Your task to perform on an android device: remove spam from my inbox in the gmail app Image 0: 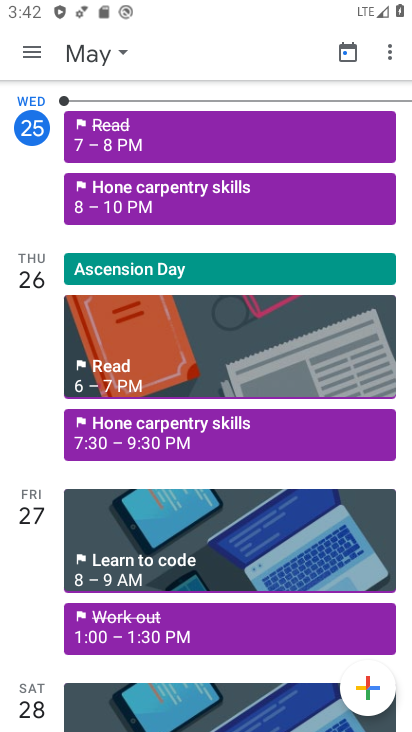
Step 0: press home button
Your task to perform on an android device: remove spam from my inbox in the gmail app Image 1: 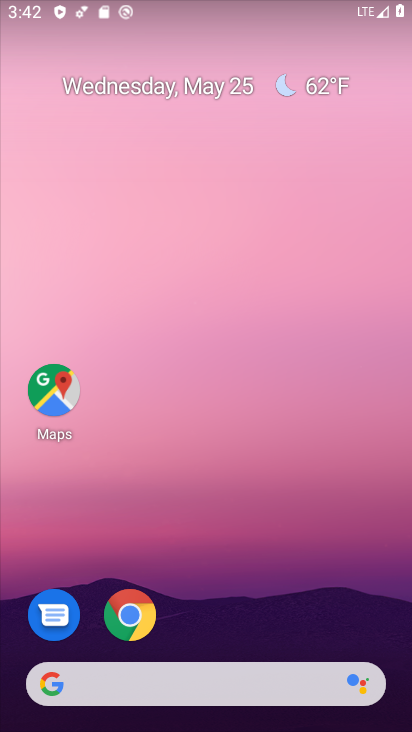
Step 1: click (131, 612)
Your task to perform on an android device: remove spam from my inbox in the gmail app Image 2: 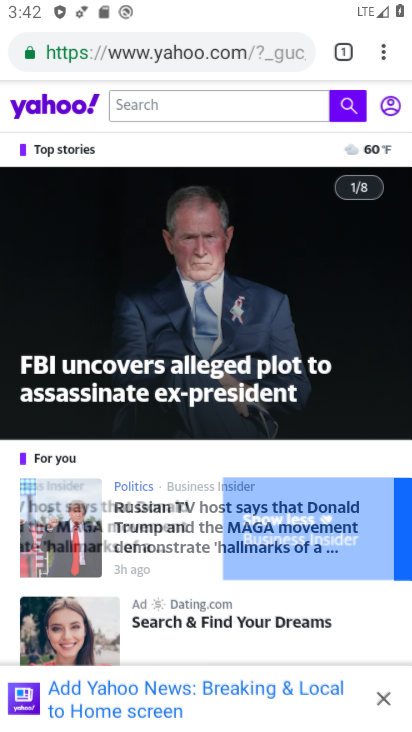
Step 2: press home button
Your task to perform on an android device: remove spam from my inbox in the gmail app Image 3: 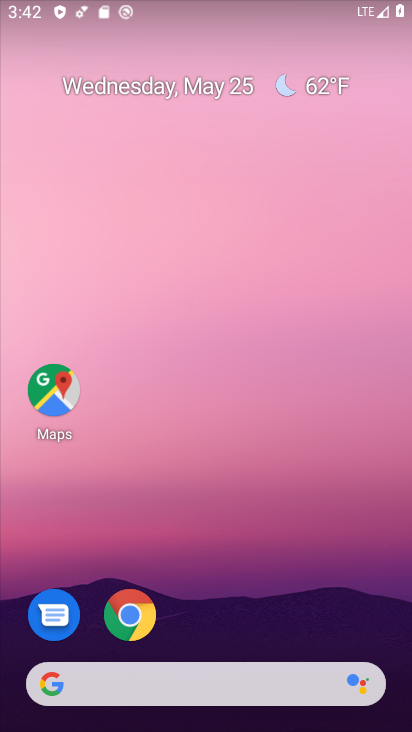
Step 3: drag from (233, 251) to (171, 6)
Your task to perform on an android device: remove spam from my inbox in the gmail app Image 4: 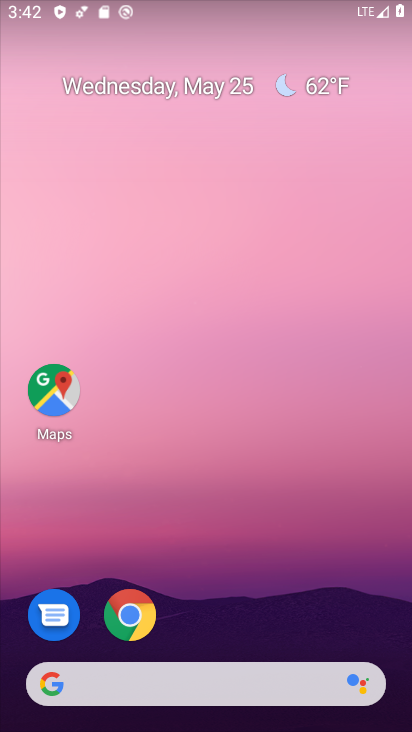
Step 4: drag from (304, 581) to (170, 2)
Your task to perform on an android device: remove spam from my inbox in the gmail app Image 5: 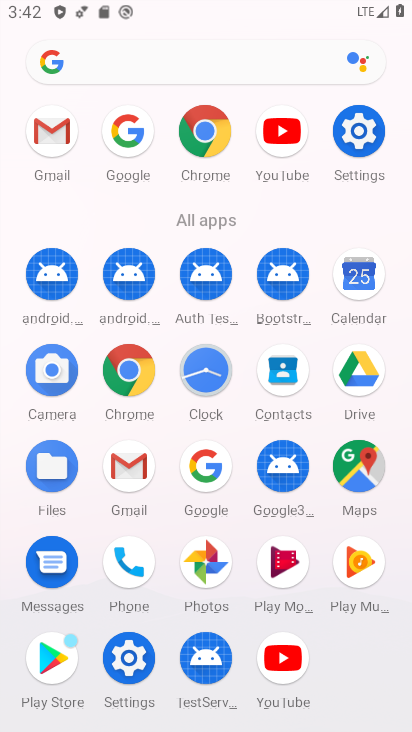
Step 5: click (141, 465)
Your task to perform on an android device: remove spam from my inbox in the gmail app Image 6: 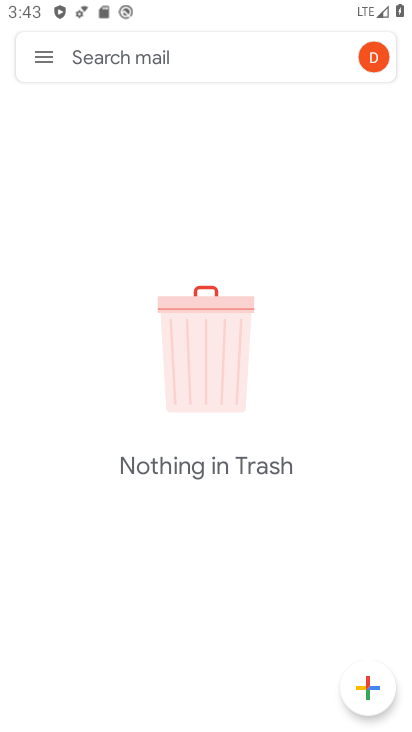
Step 6: click (41, 44)
Your task to perform on an android device: remove spam from my inbox in the gmail app Image 7: 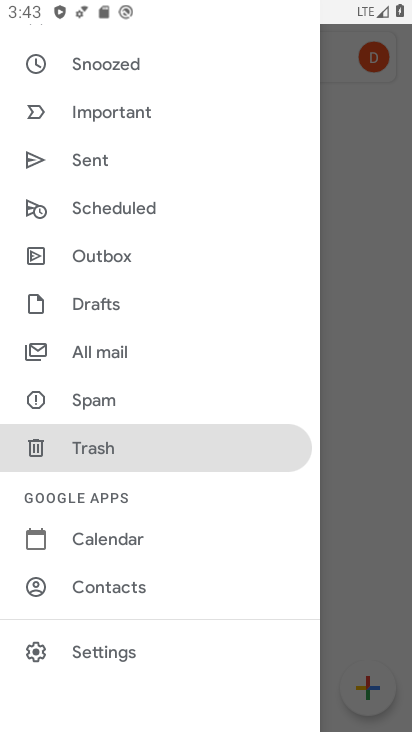
Step 7: click (114, 397)
Your task to perform on an android device: remove spam from my inbox in the gmail app Image 8: 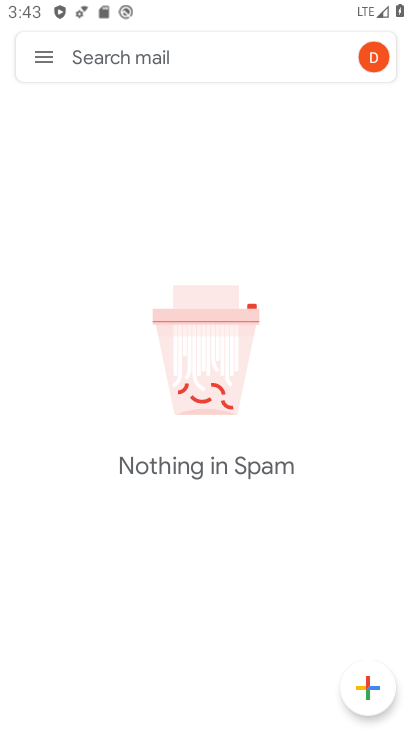
Step 8: click (45, 53)
Your task to perform on an android device: remove spam from my inbox in the gmail app Image 9: 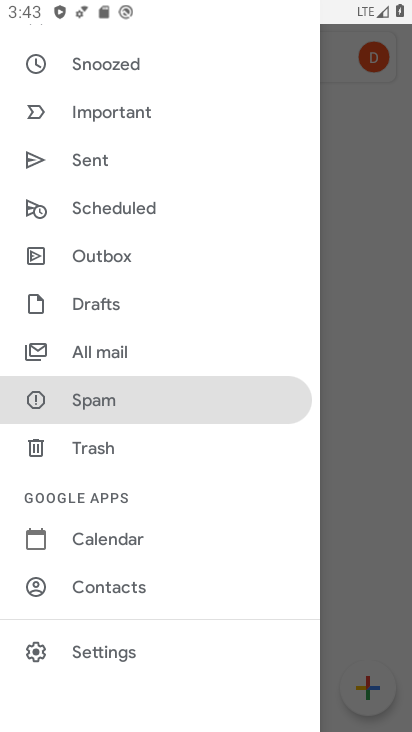
Step 9: click (153, 391)
Your task to perform on an android device: remove spam from my inbox in the gmail app Image 10: 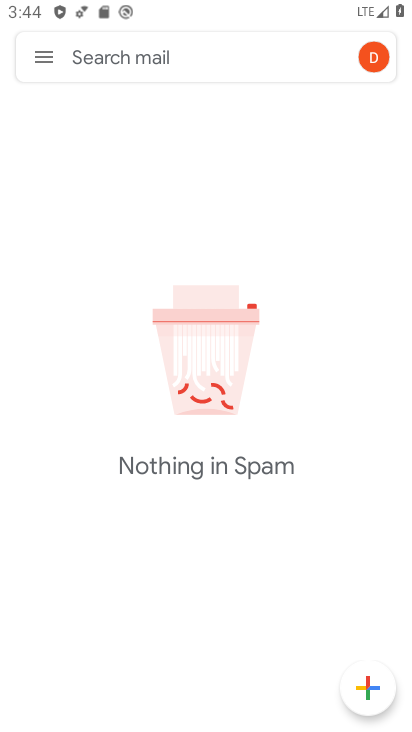
Step 10: task complete